Your task to perform on an android device: Go to internet settings Image 0: 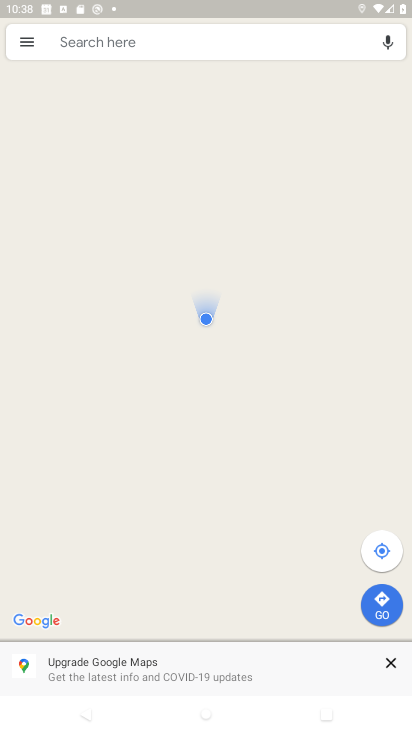
Step 0: press home button
Your task to perform on an android device: Go to internet settings Image 1: 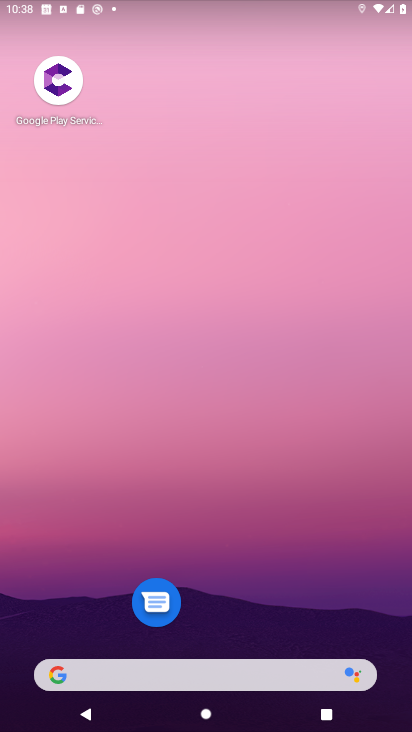
Step 1: drag from (197, 638) to (166, 179)
Your task to perform on an android device: Go to internet settings Image 2: 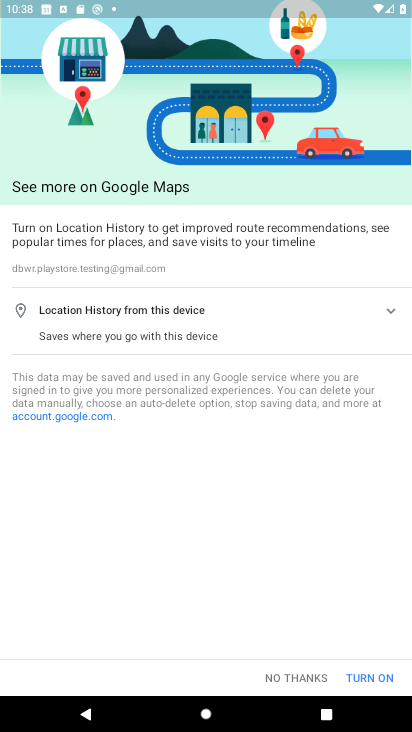
Step 2: press home button
Your task to perform on an android device: Go to internet settings Image 3: 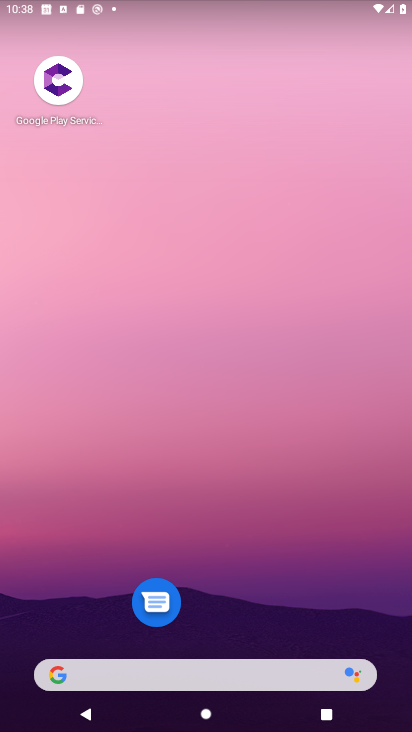
Step 3: drag from (304, 672) to (268, 144)
Your task to perform on an android device: Go to internet settings Image 4: 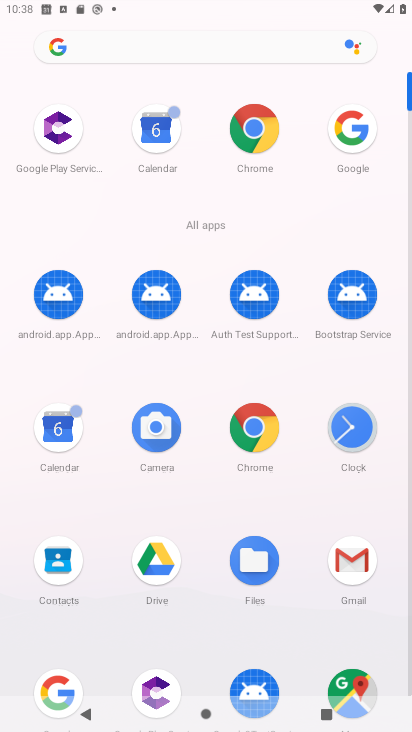
Step 4: drag from (270, 500) to (303, 245)
Your task to perform on an android device: Go to internet settings Image 5: 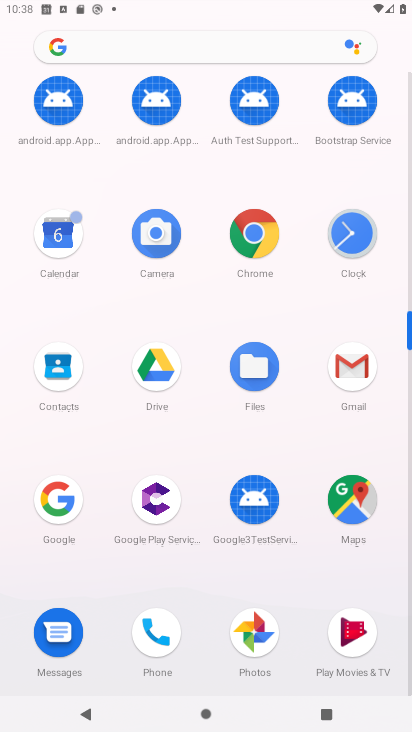
Step 5: drag from (257, 502) to (297, 241)
Your task to perform on an android device: Go to internet settings Image 6: 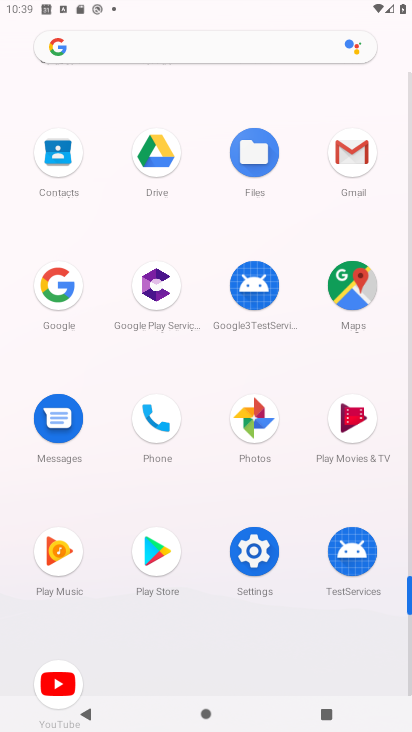
Step 6: drag from (243, 354) to (250, 274)
Your task to perform on an android device: Go to internet settings Image 7: 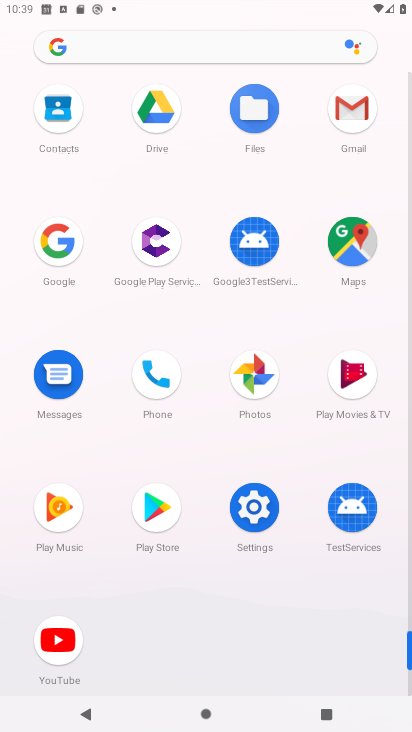
Step 7: click (234, 531)
Your task to perform on an android device: Go to internet settings Image 8: 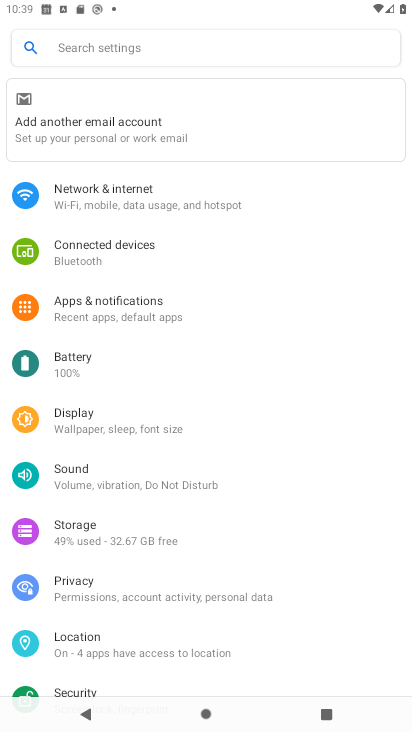
Step 8: click (159, 200)
Your task to perform on an android device: Go to internet settings Image 9: 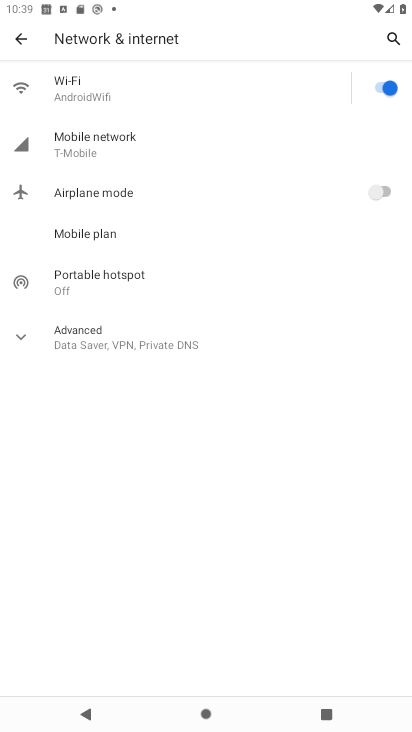
Step 9: task complete